Your task to perform on an android device: find which apps use the phone's location Image 0: 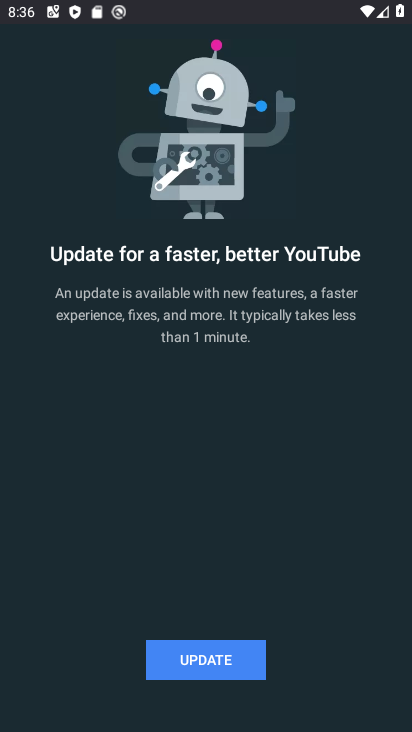
Step 0: press back button
Your task to perform on an android device: find which apps use the phone's location Image 1: 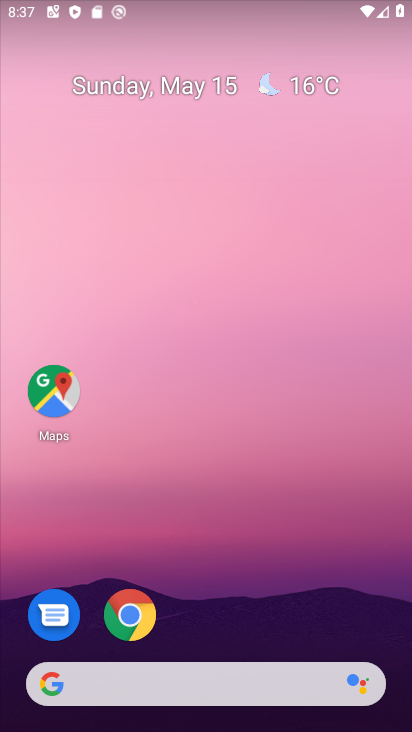
Step 1: drag from (254, 582) to (282, 4)
Your task to perform on an android device: find which apps use the phone's location Image 2: 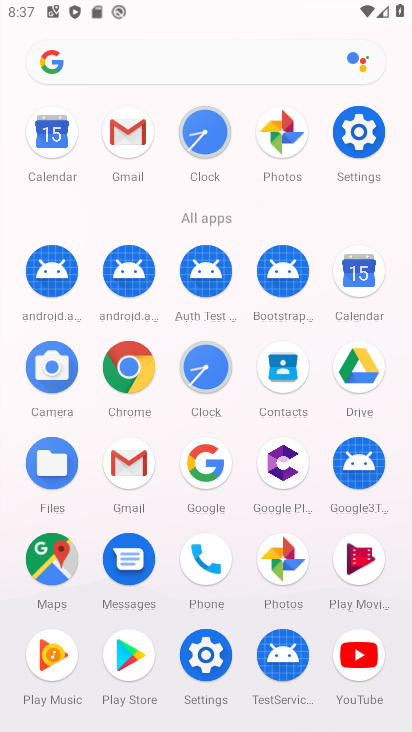
Step 2: click (204, 648)
Your task to perform on an android device: find which apps use the phone's location Image 3: 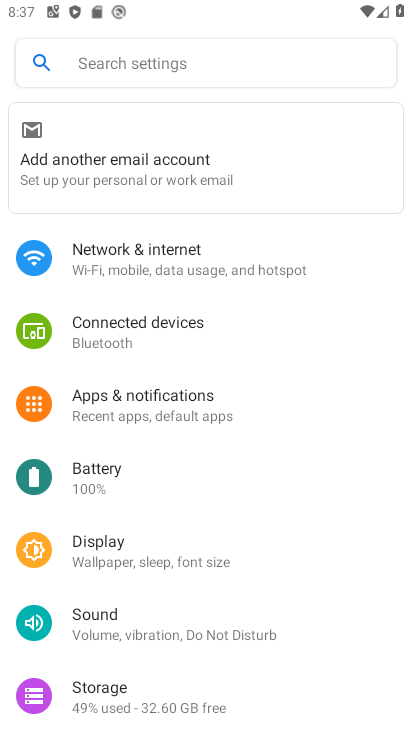
Step 3: drag from (151, 682) to (175, 382)
Your task to perform on an android device: find which apps use the phone's location Image 4: 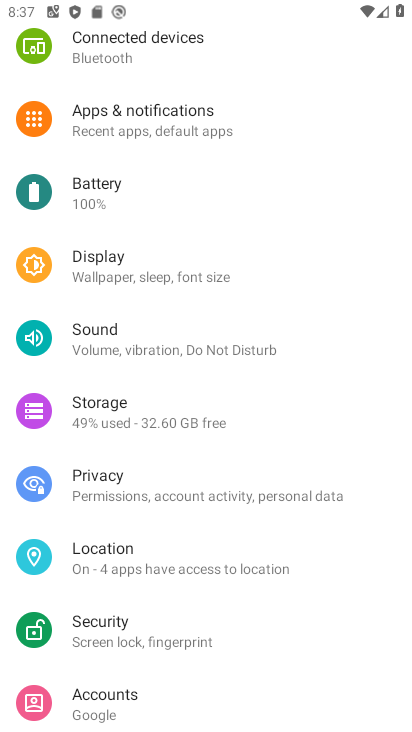
Step 4: click (164, 557)
Your task to perform on an android device: find which apps use the phone's location Image 5: 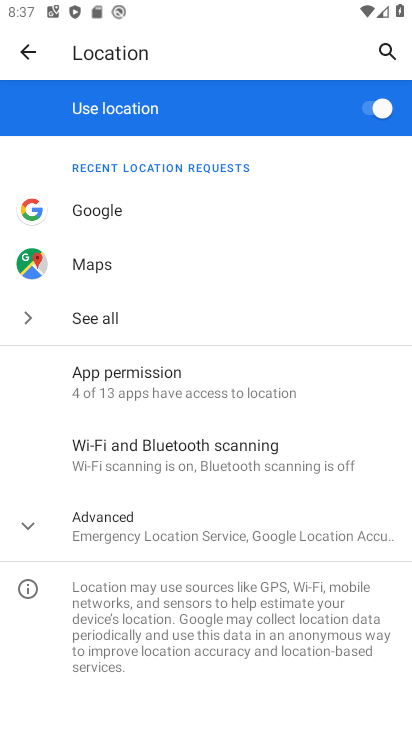
Step 5: click (128, 537)
Your task to perform on an android device: find which apps use the phone's location Image 6: 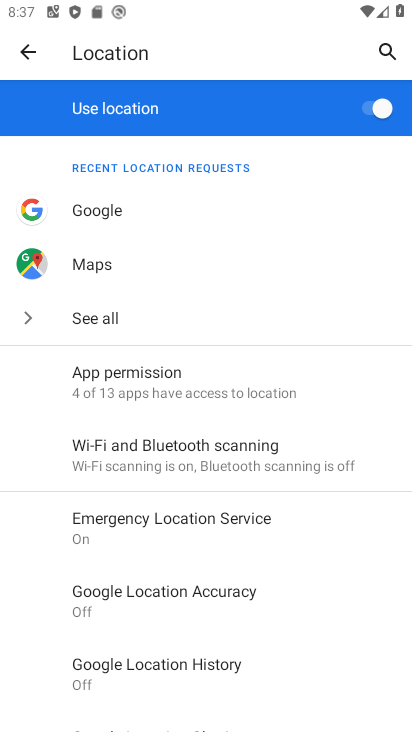
Step 6: click (208, 381)
Your task to perform on an android device: find which apps use the phone's location Image 7: 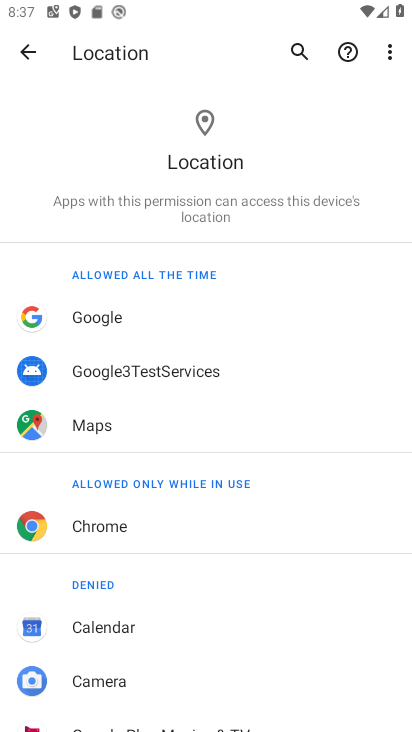
Step 7: task complete